Your task to perform on an android device: change text size in settings app Image 0: 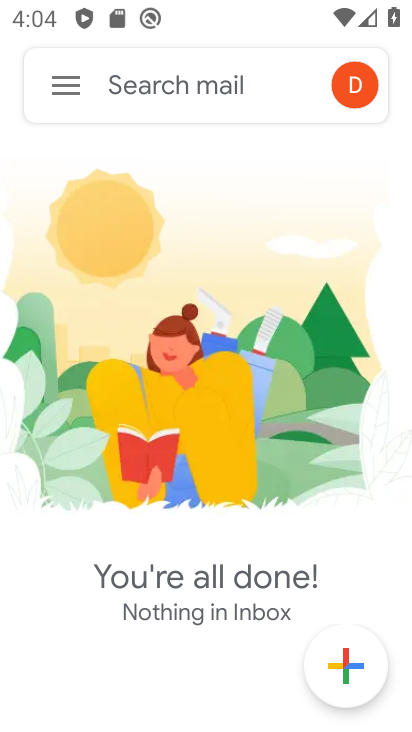
Step 0: press back button
Your task to perform on an android device: change text size in settings app Image 1: 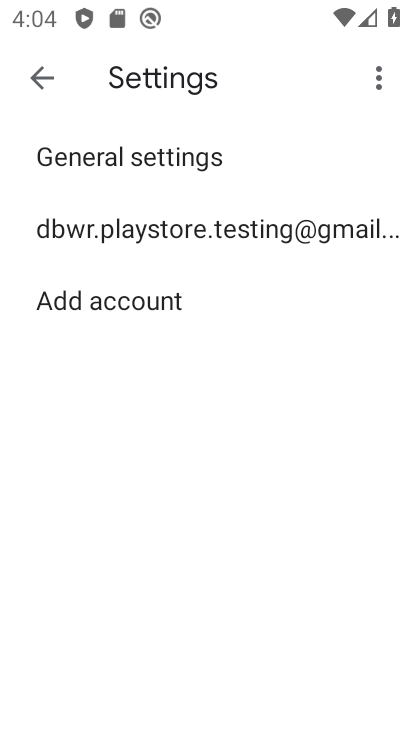
Step 1: click (43, 68)
Your task to perform on an android device: change text size in settings app Image 2: 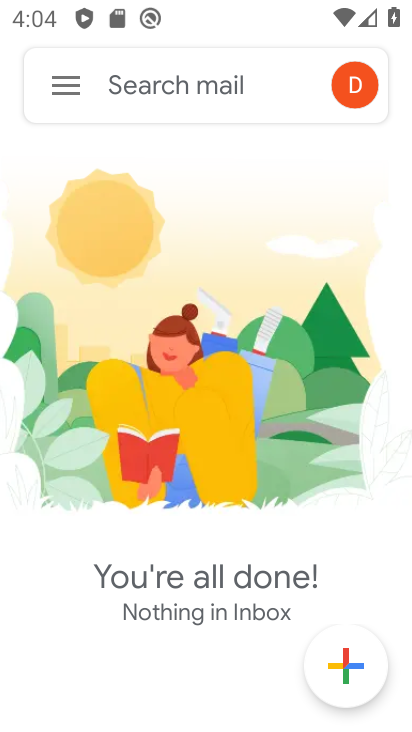
Step 2: click (35, 86)
Your task to perform on an android device: change text size in settings app Image 3: 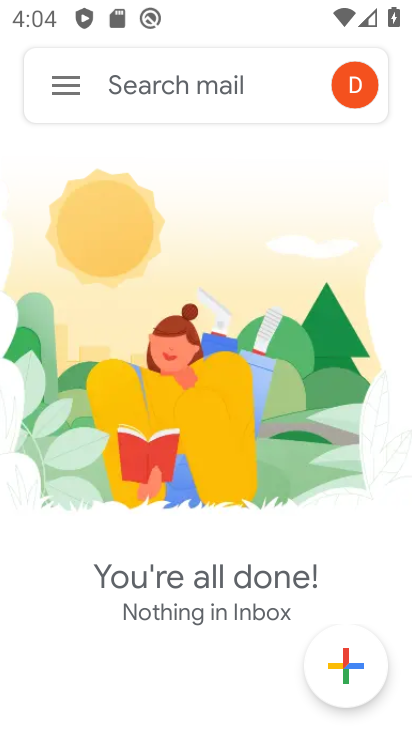
Step 3: click (35, 86)
Your task to perform on an android device: change text size in settings app Image 4: 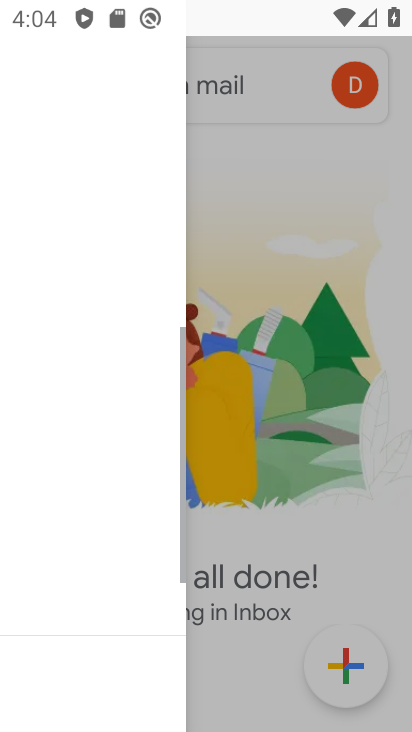
Step 4: click (35, 86)
Your task to perform on an android device: change text size in settings app Image 5: 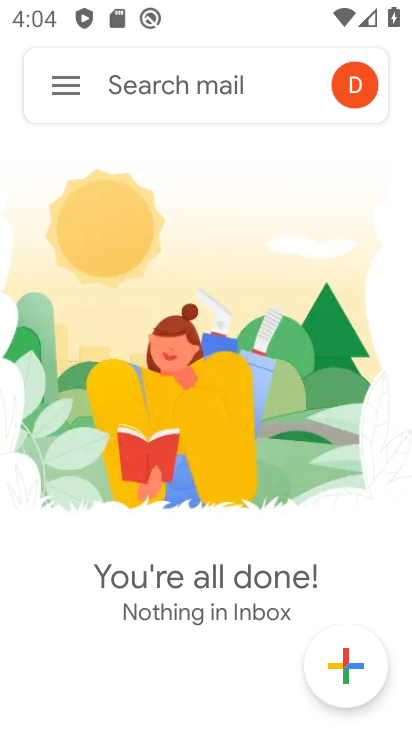
Step 5: drag from (186, 542) to (87, 32)
Your task to perform on an android device: change text size in settings app Image 6: 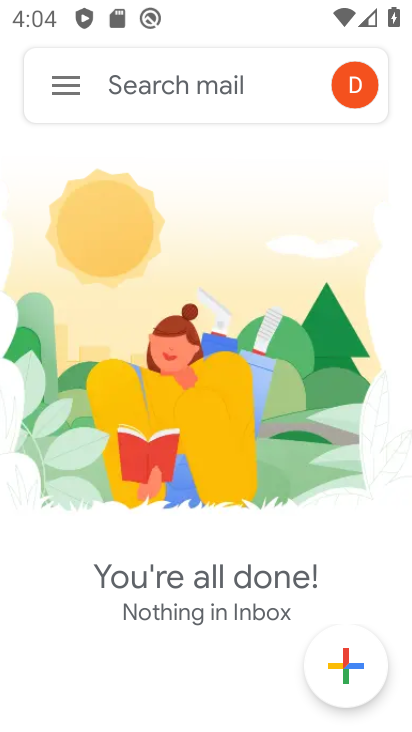
Step 6: drag from (174, 445) to (114, 56)
Your task to perform on an android device: change text size in settings app Image 7: 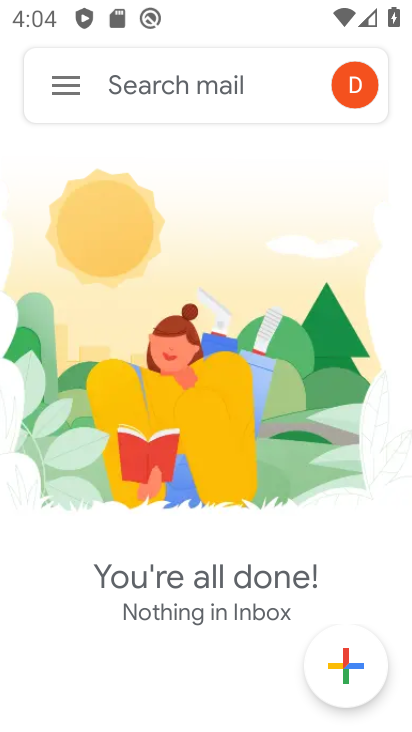
Step 7: drag from (205, 569) to (117, 4)
Your task to perform on an android device: change text size in settings app Image 8: 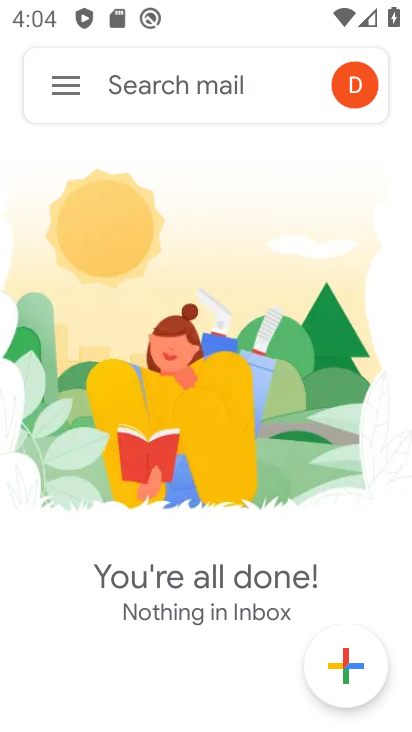
Step 8: drag from (179, 488) to (134, 136)
Your task to perform on an android device: change text size in settings app Image 9: 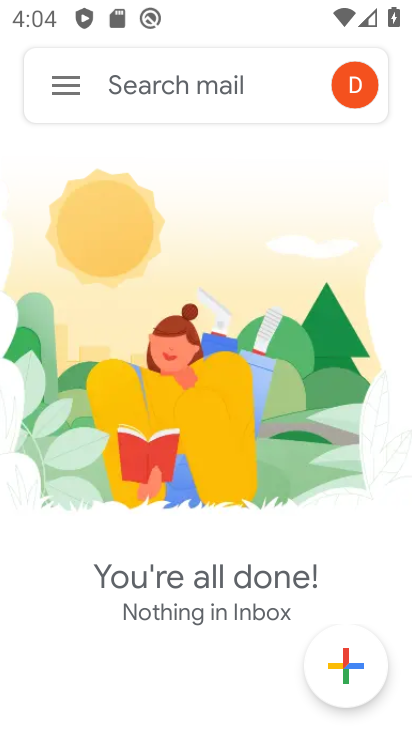
Step 9: drag from (179, 484) to (126, 90)
Your task to perform on an android device: change text size in settings app Image 10: 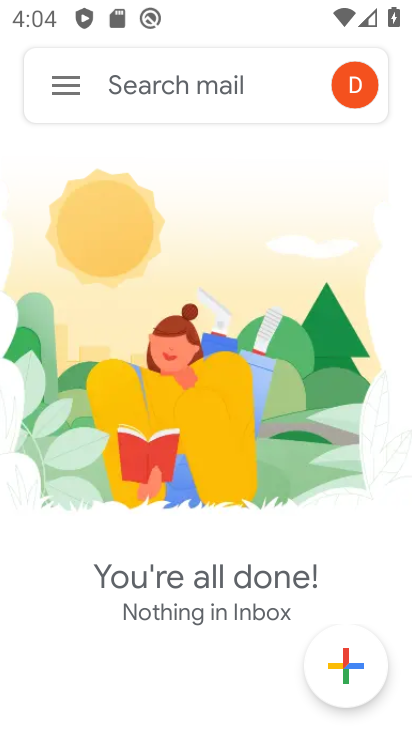
Step 10: drag from (203, 398) to (201, 79)
Your task to perform on an android device: change text size in settings app Image 11: 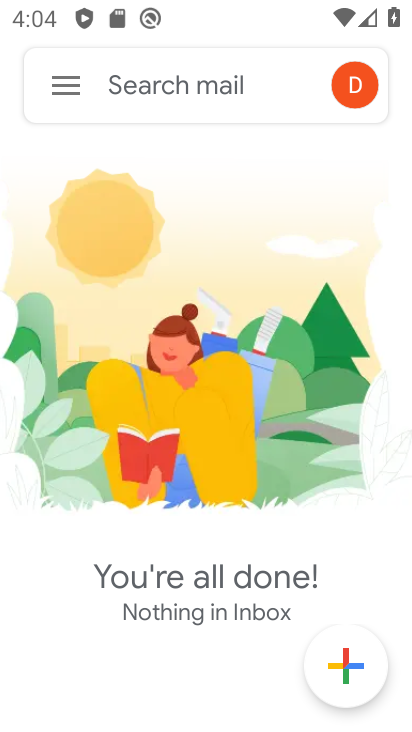
Step 11: drag from (216, 355) to (192, 131)
Your task to perform on an android device: change text size in settings app Image 12: 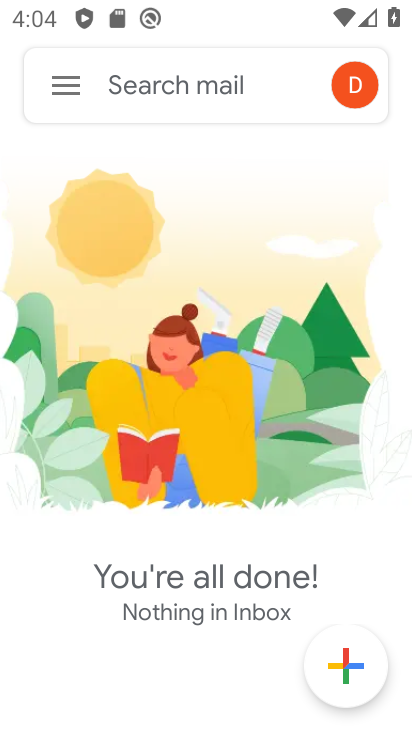
Step 12: drag from (266, 253) to (252, 173)
Your task to perform on an android device: change text size in settings app Image 13: 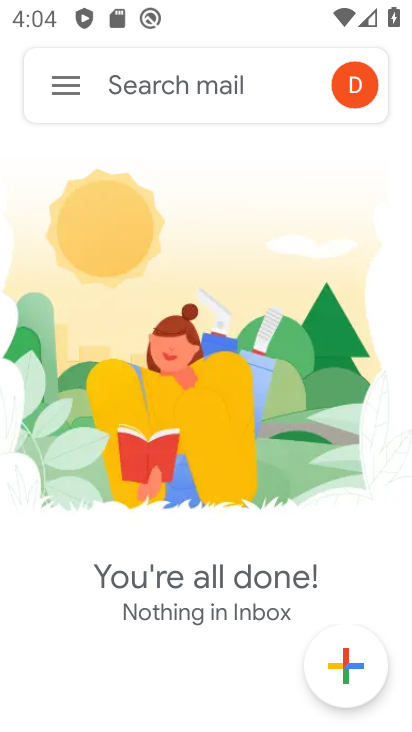
Step 13: drag from (242, 412) to (166, 203)
Your task to perform on an android device: change text size in settings app Image 14: 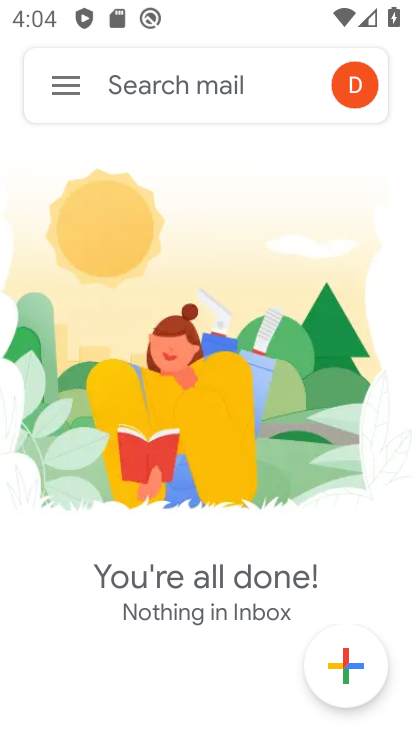
Step 14: drag from (169, 632) to (133, 126)
Your task to perform on an android device: change text size in settings app Image 15: 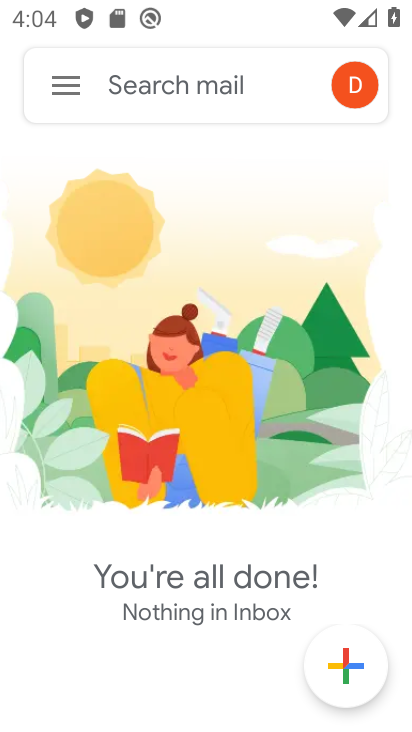
Step 15: drag from (157, 655) to (108, 131)
Your task to perform on an android device: change text size in settings app Image 16: 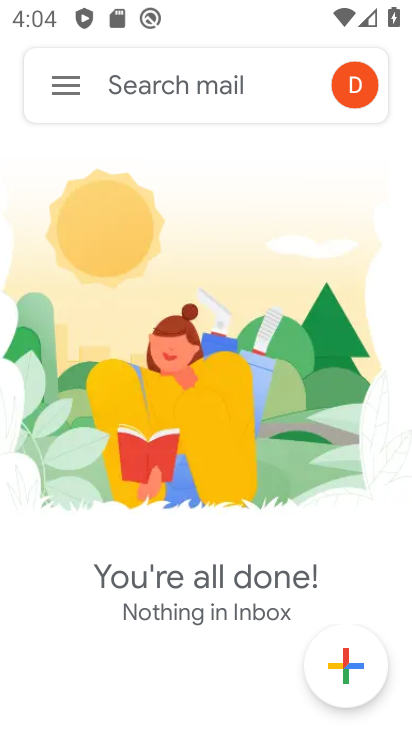
Step 16: press home button
Your task to perform on an android device: change text size in settings app Image 17: 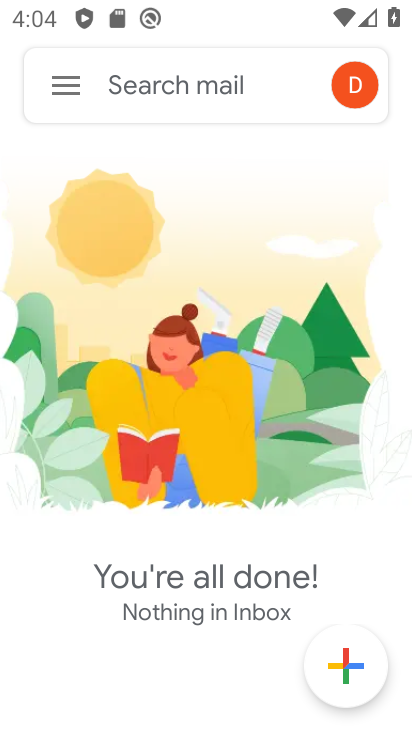
Step 17: press home button
Your task to perform on an android device: change text size in settings app Image 18: 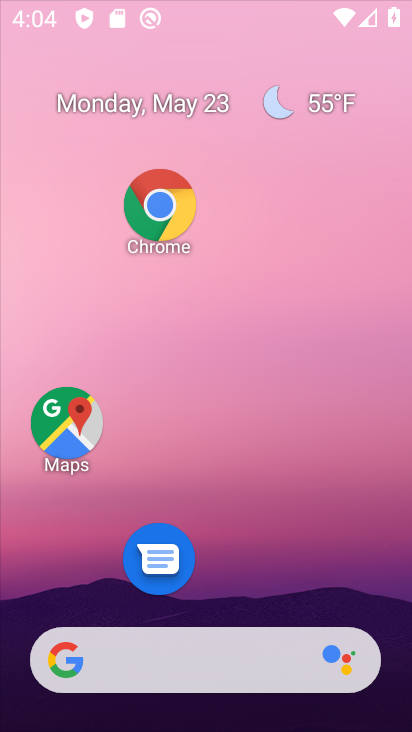
Step 18: press home button
Your task to perform on an android device: change text size in settings app Image 19: 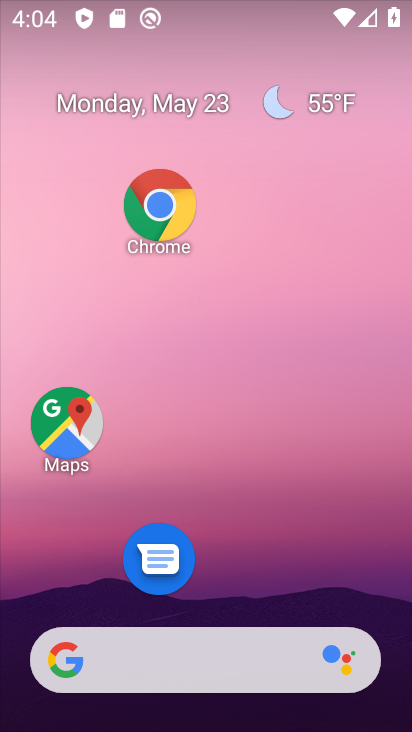
Step 19: press home button
Your task to perform on an android device: change text size in settings app Image 20: 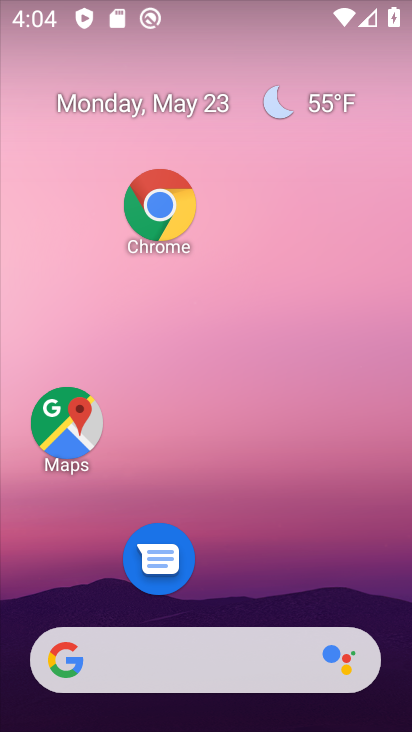
Step 20: drag from (282, 649) to (102, 4)
Your task to perform on an android device: change text size in settings app Image 21: 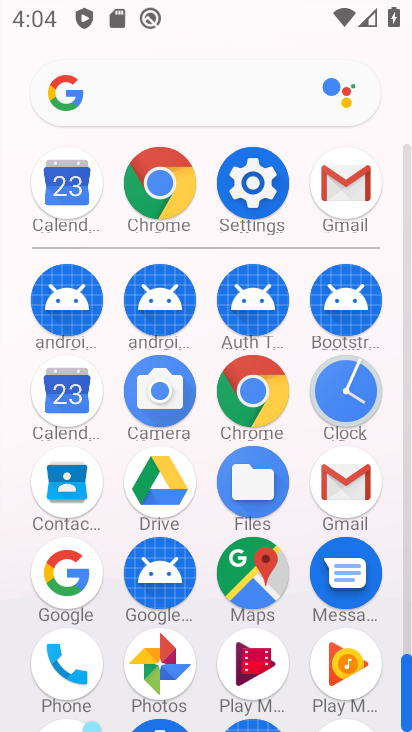
Step 21: click (242, 163)
Your task to perform on an android device: change text size in settings app Image 22: 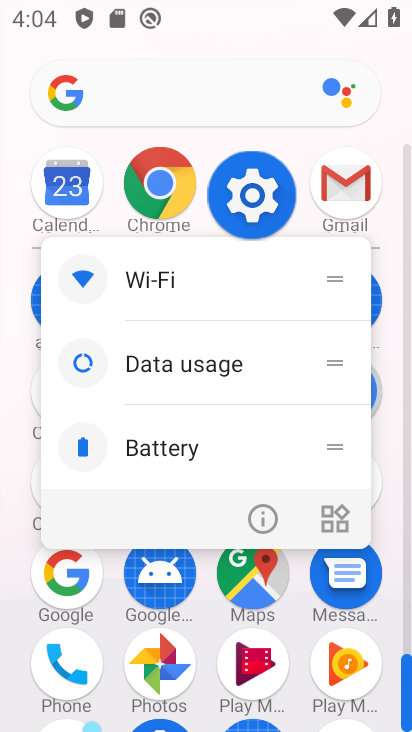
Step 22: click (244, 191)
Your task to perform on an android device: change text size in settings app Image 23: 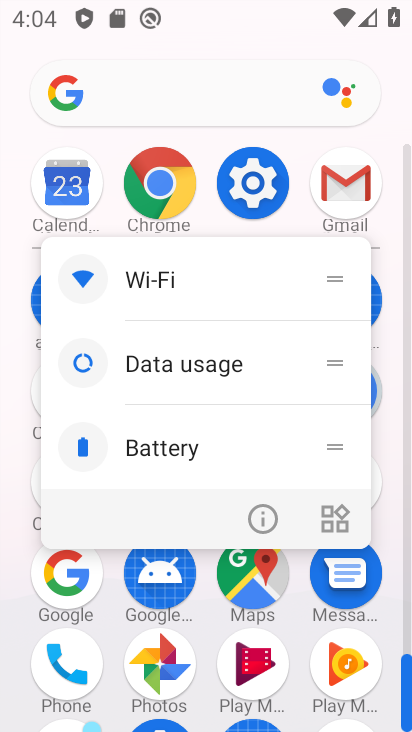
Step 23: click (244, 191)
Your task to perform on an android device: change text size in settings app Image 24: 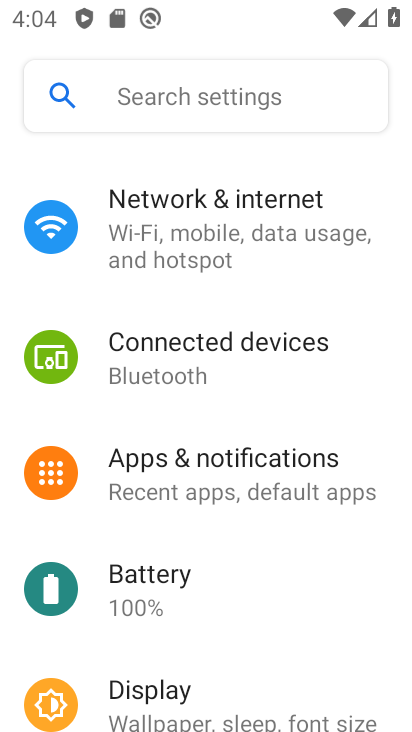
Step 24: click (256, 180)
Your task to perform on an android device: change text size in settings app Image 25: 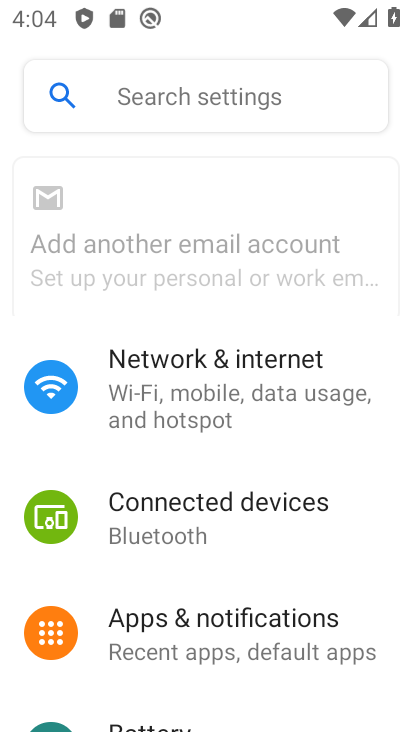
Step 25: click (256, 180)
Your task to perform on an android device: change text size in settings app Image 26: 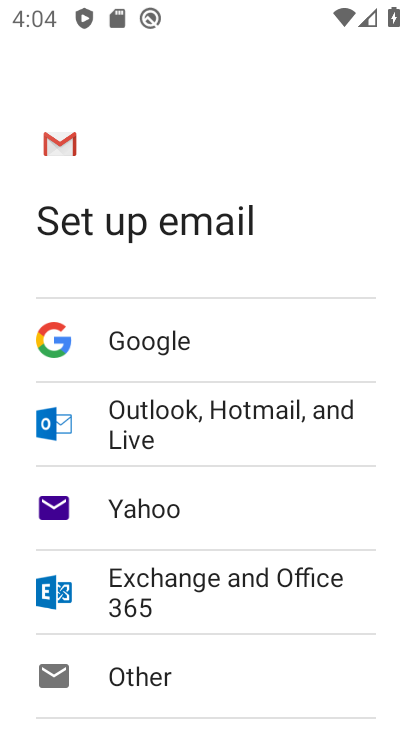
Step 26: press back button
Your task to perform on an android device: change text size in settings app Image 27: 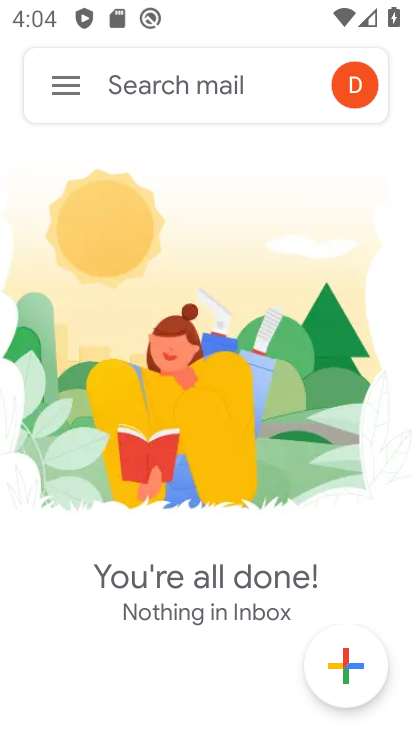
Step 27: click (53, 83)
Your task to perform on an android device: change text size in settings app Image 28: 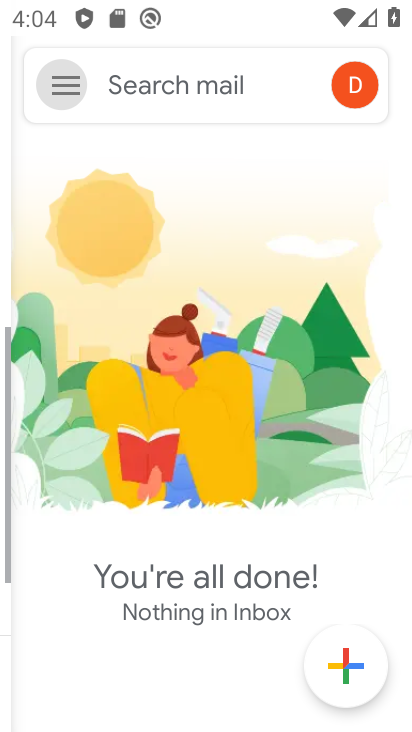
Step 28: press home button
Your task to perform on an android device: change text size in settings app Image 29: 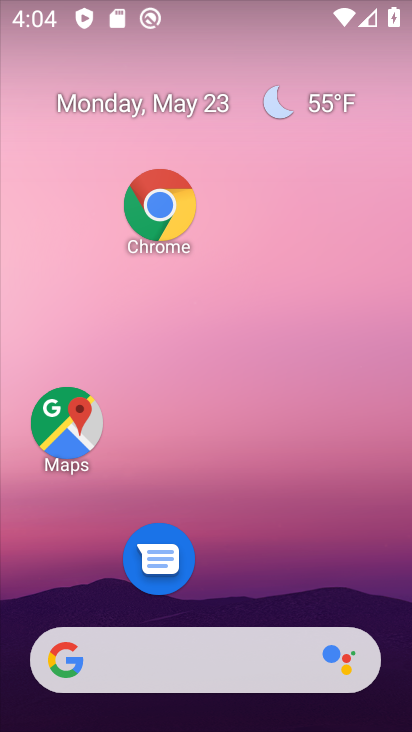
Step 29: click (188, 129)
Your task to perform on an android device: change text size in settings app Image 30: 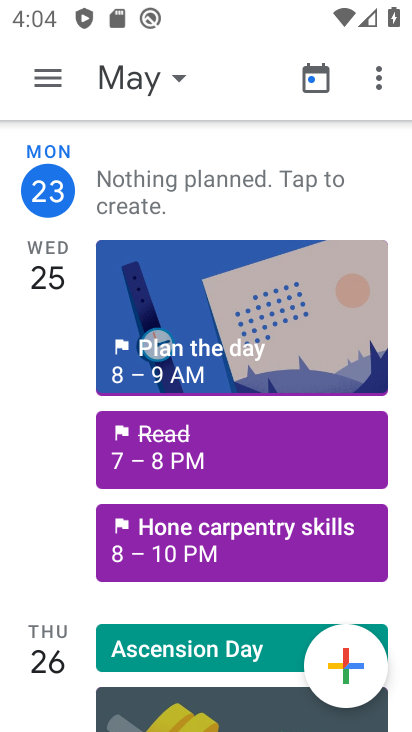
Step 30: drag from (258, 537) to (137, 88)
Your task to perform on an android device: change text size in settings app Image 31: 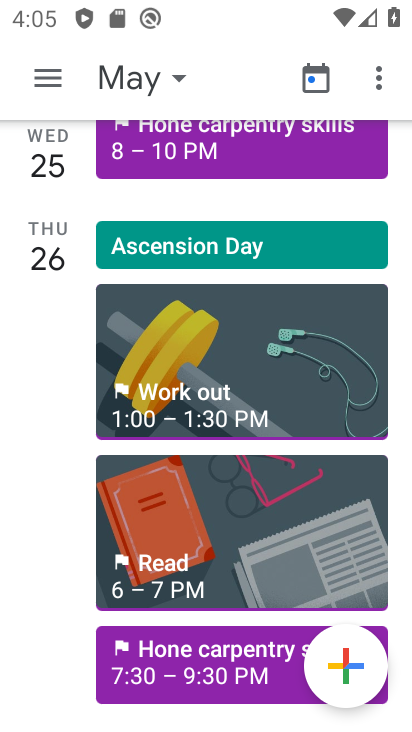
Step 31: press back button
Your task to perform on an android device: change text size in settings app Image 32: 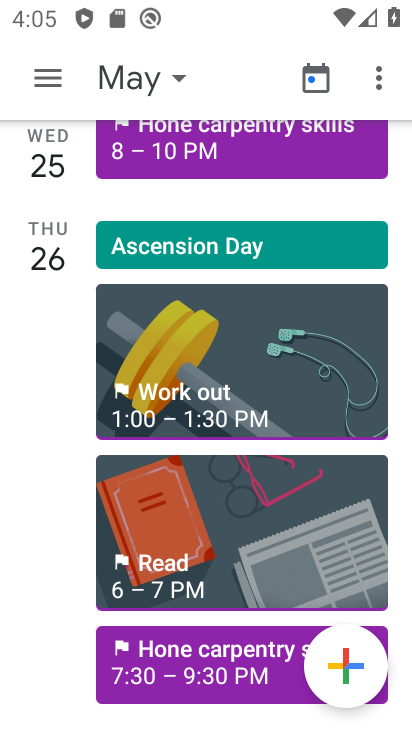
Step 32: press back button
Your task to perform on an android device: change text size in settings app Image 33: 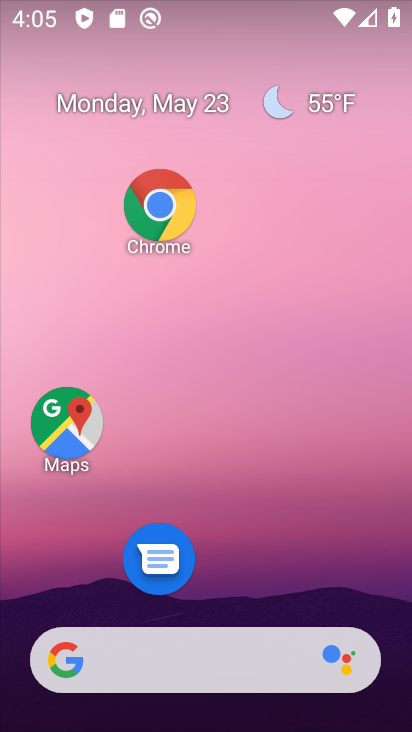
Step 33: drag from (287, 677) to (176, 113)
Your task to perform on an android device: change text size in settings app Image 34: 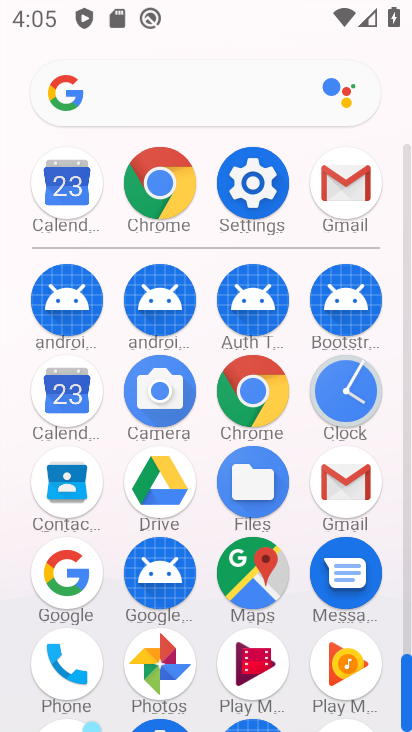
Step 34: click (263, 192)
Your task to perform on an android device: change text size in settings app Image 35: 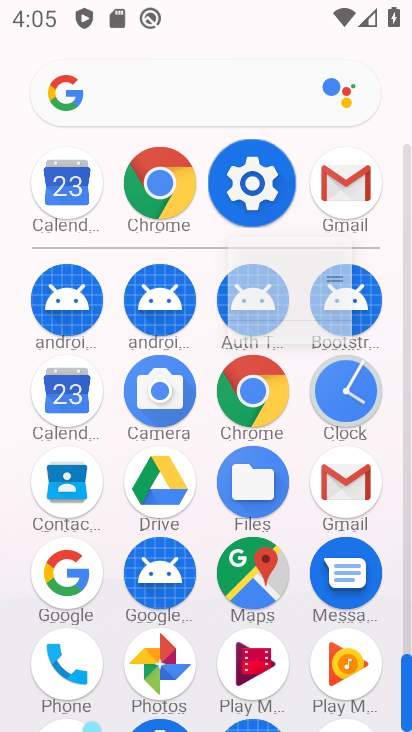
Step 35: click (263, 192)
Your task to perform on an android device: change text size in settings app Image 36: 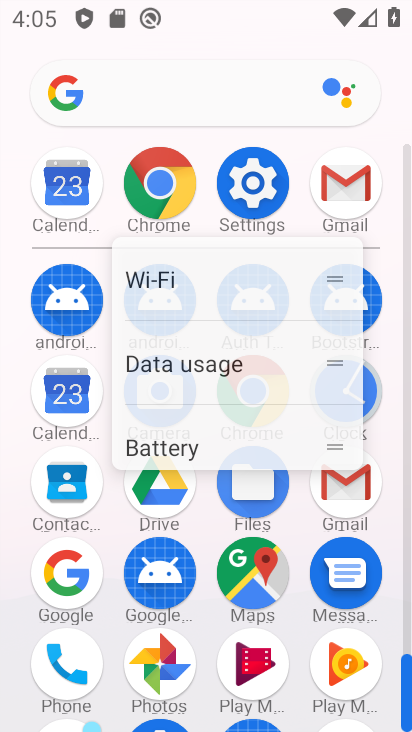
Step 36: click (263, 192)
Your task to perform on an android device: change text size in settings app Image 37: 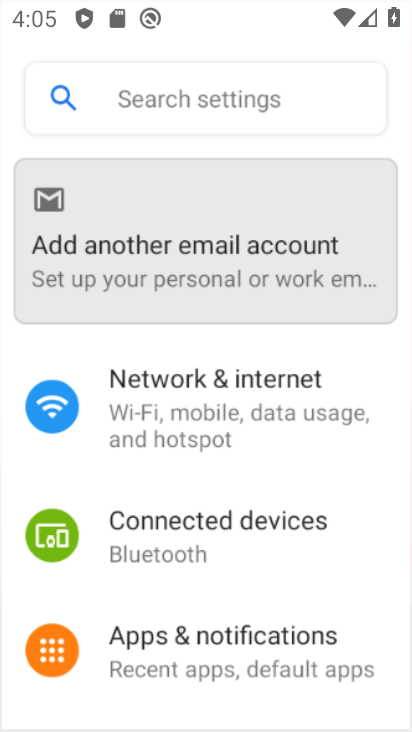
Step 37: click (263, 192)
Your task to perform on an android device: change text size in settings app Image 38: 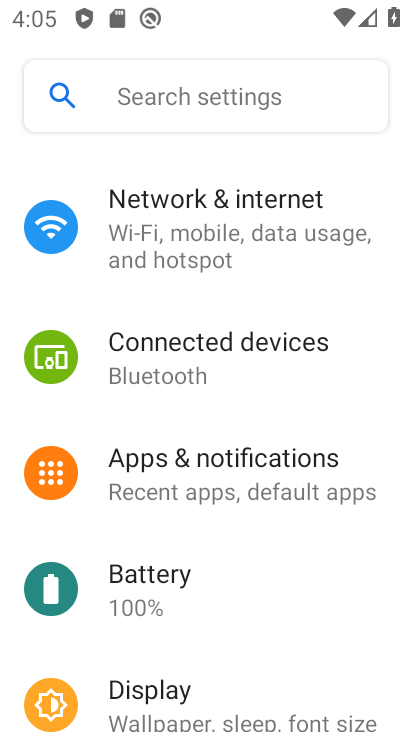
Step 38: click (263, 192)
Your task to perform on an android device: change text size in settings app Image 39: 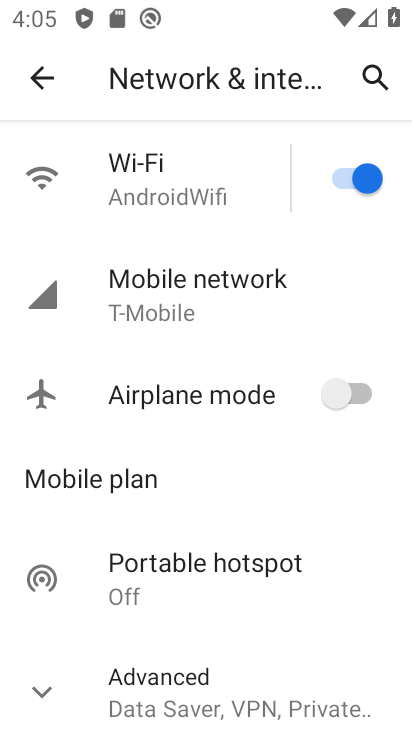
Step 39: click (36, 74)
Your task to perform on an android device: change text size in settings app Image 40: 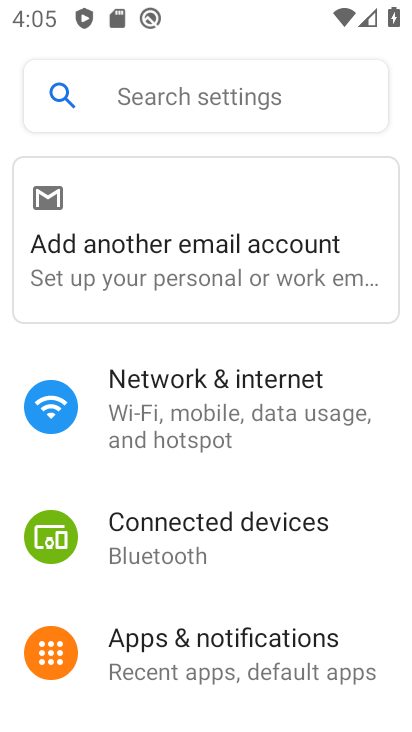
Step 40: drag from (196, 625) to (157, 229)
Your task to perform on an android device: change text size in settings app Image 41: 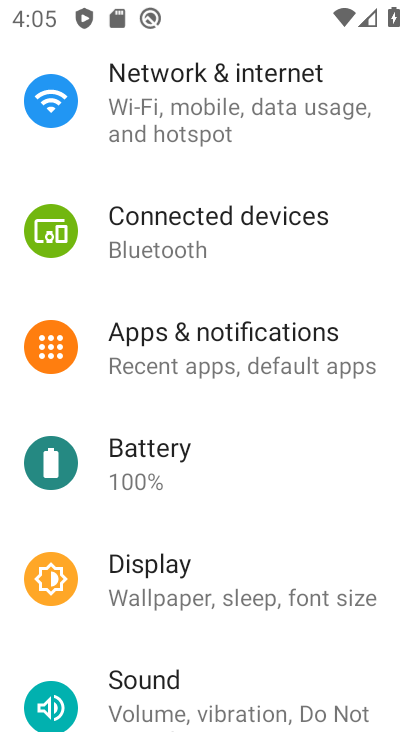
Step 41: drag from (203, 543) to (206, 282)
Your task to perform on an android device: change text size in settings app Image 42: 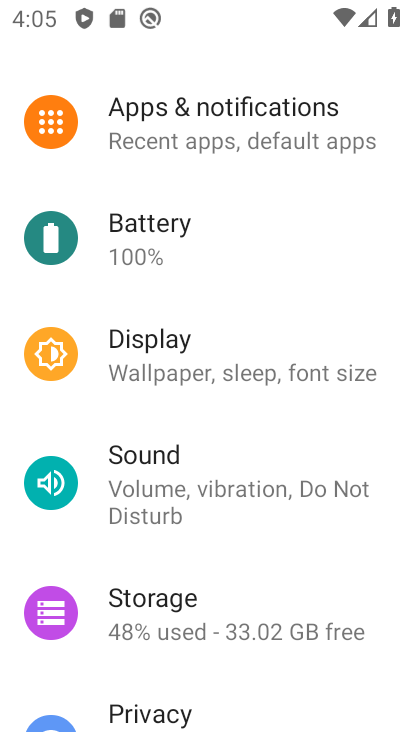
Step 42: drag from (237, 603) to (234, 204)
Your task to perform on an android device: change text size in settings app Image 43: 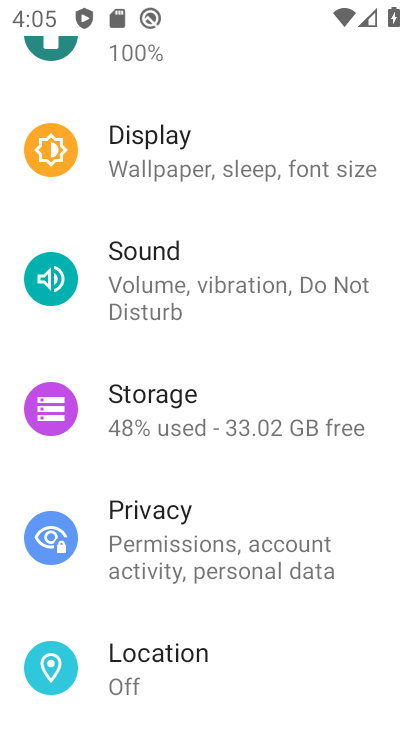
Step 43: click (160, 145)
Your task to perform on an android device: change text size in settings app Image 44: 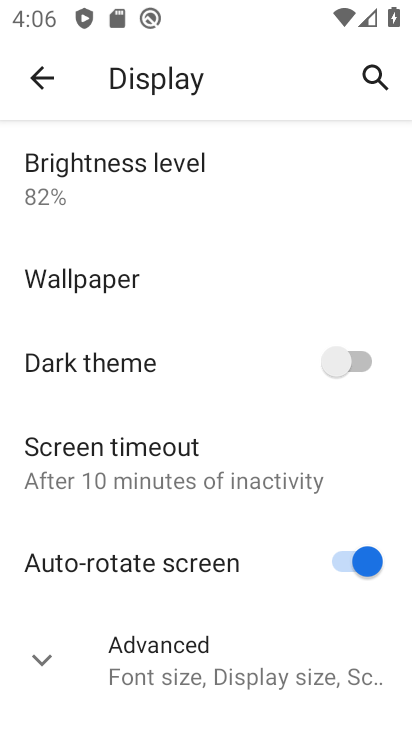
Step 44: click (188, 661)
Your task to perform on an android device: change text size in settings app Image 45: 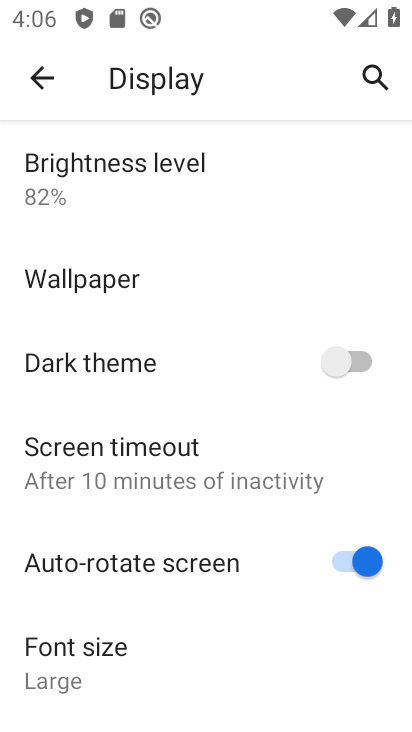
Step 45: click (80, 657)
Your task to perform on an android device: change text size in settings app Image 46: 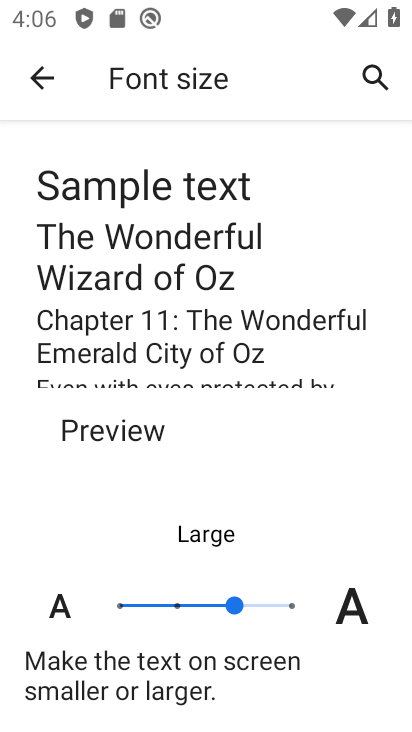
Step 46: click (178, 604)
Your task to perform on an android device: change text size in settings app Image 47: 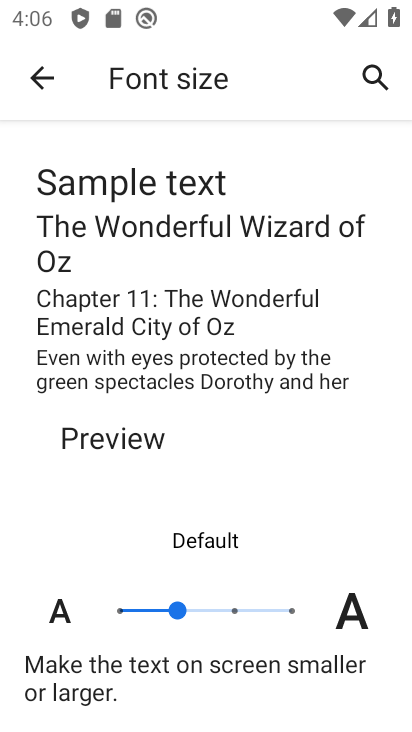
Step 47: task complete